Your task to perform on an android device: turn on showing notifications on the lock screen Image 0: 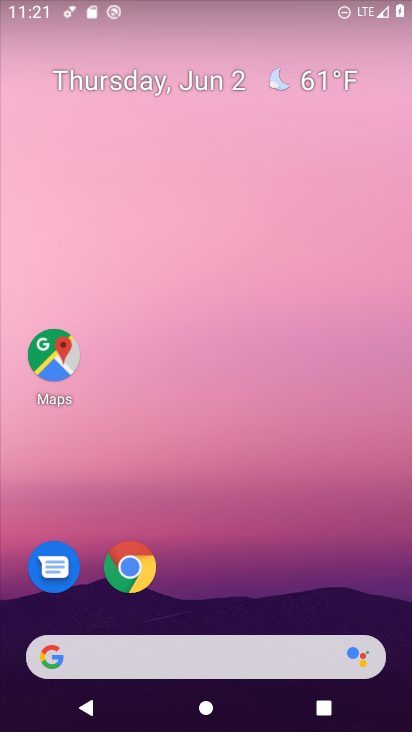
Step 0: drag from (327, 624) to (254, 228)
Your task to perform on an android device: turn on showing notifications on the lock screen Image 1: 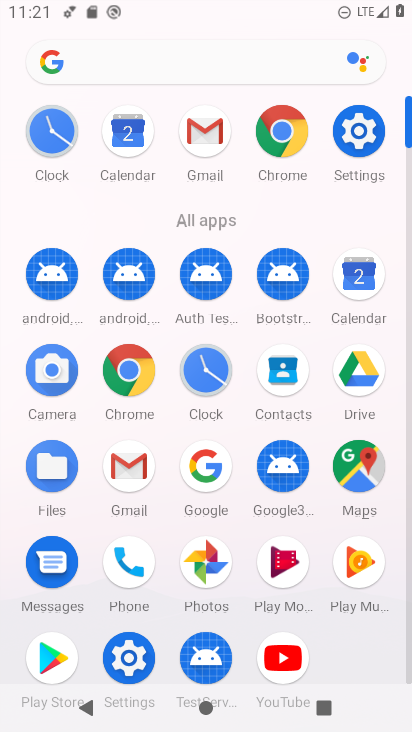
Step 1: click (353, 137)
Your task to perform on an android device: turn on showing notifications on the lock screen Image 2: 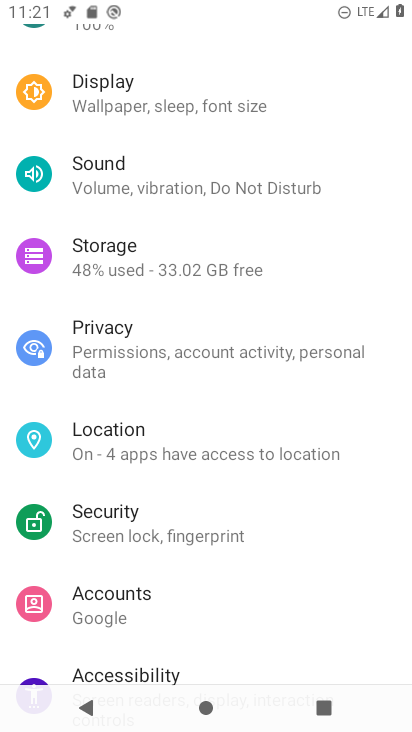
Step 2: drag from (165, 160) to (302, 525)
Your task to perform on an android device: turn on showing notifications on the lock screen Image 3: 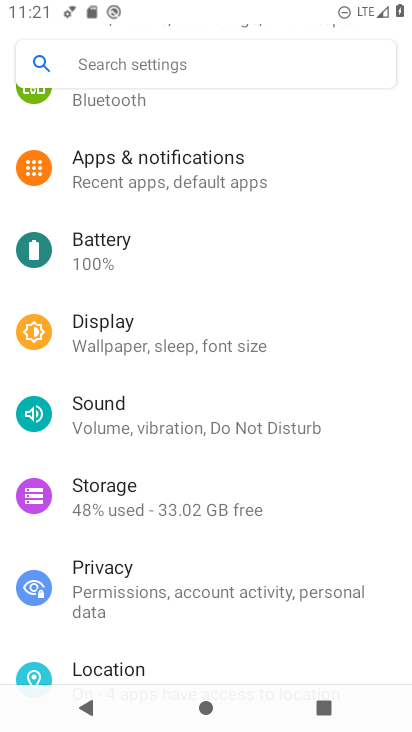
Step 3: drag from (208, 150) to (238, 547)
Your task to perform on an android device: turn on showing notifications on the lock screen Image 4: 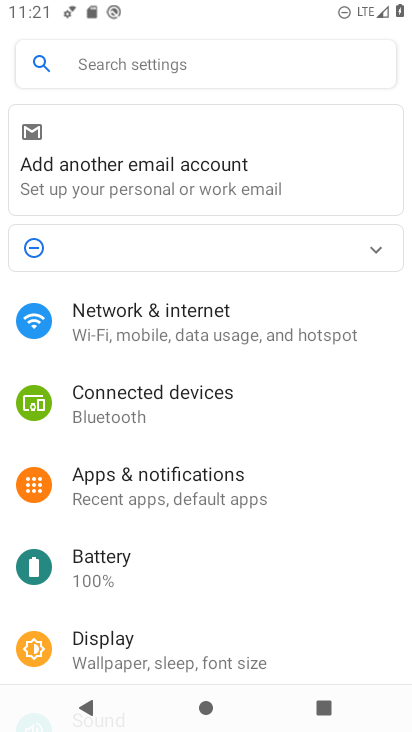
Step 4: click (185, 476)
Your task to perform on an android device: turn on showing notifications on the lock screen Image 5: 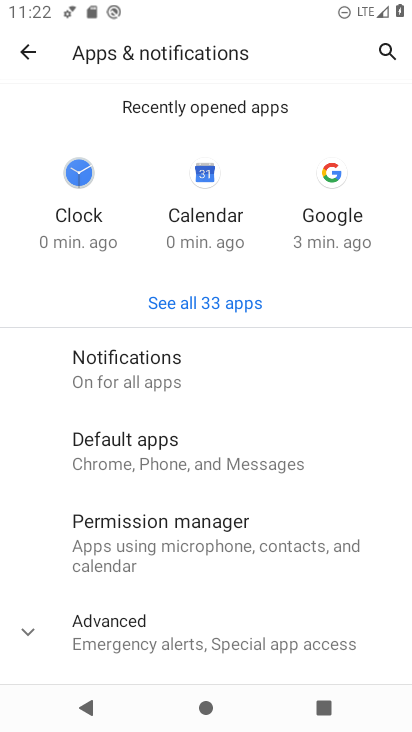
Step 5: click (188, 375)
Your task to perform on an android device: turn on showing notifications on the lock screen Image 6: 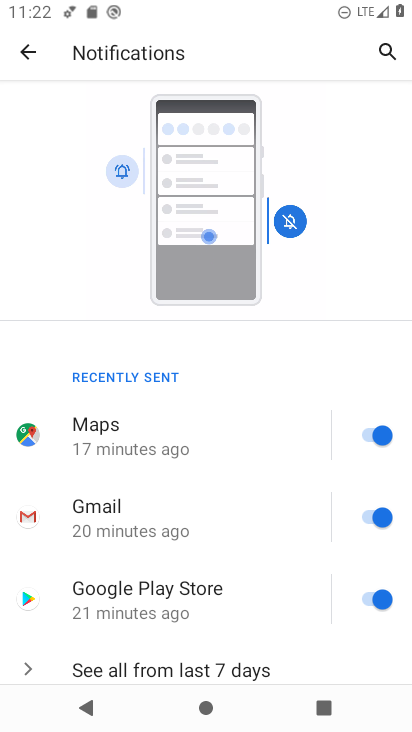
Step 6: drag from (269, 579) to (286, 134)
Your task to perform on an android device: turn on showing notifications on the lock screen Image 7: 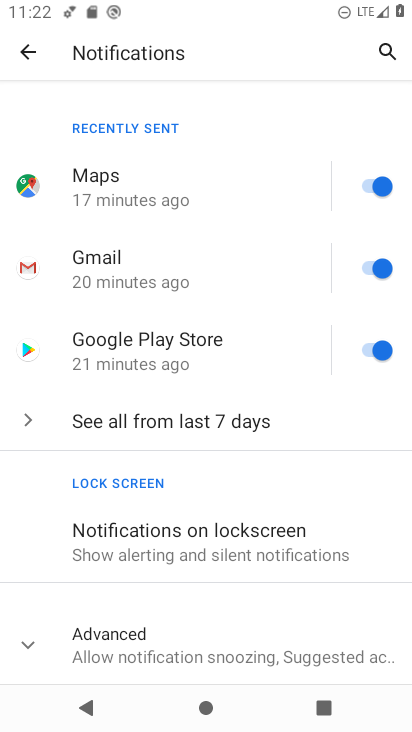
Step 7: click (238, 543)
Your task to perform on an android device: turn on showing notifications on the lock screen Image 8: 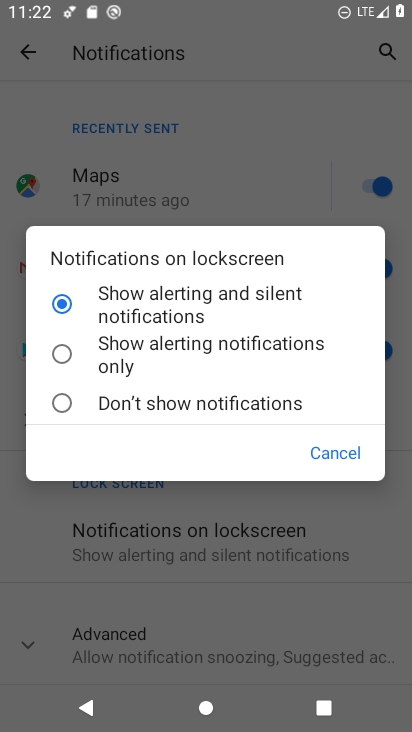
Step 8: click (193, 359)
Your task to perform on an android device: turn on showing notifications on the lock screen Image 9: 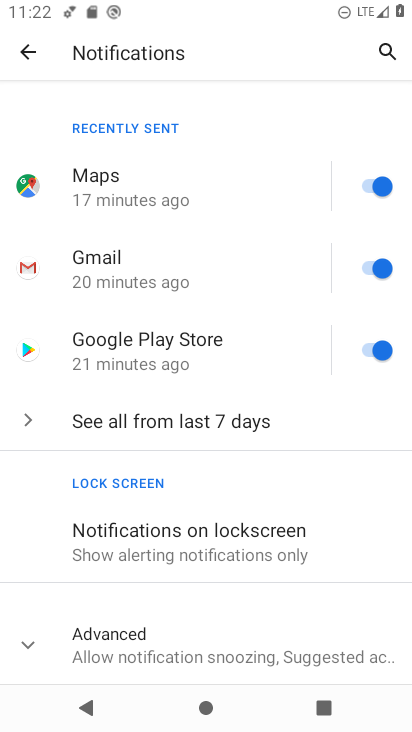
Step 9: task complete